Your task to perform on an android device: turn off notifications in google photos Image 0: 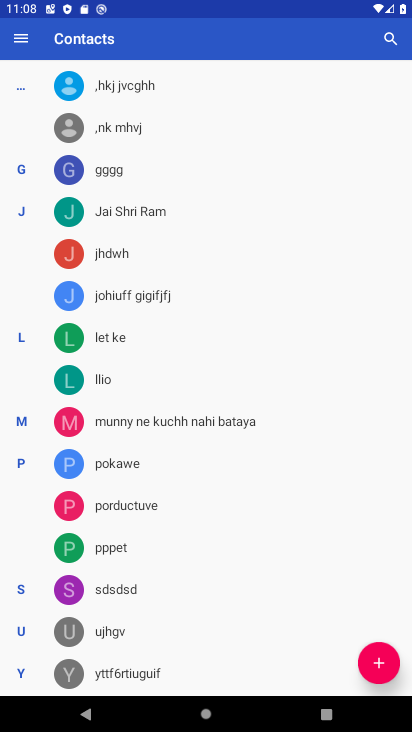
Step 0: press home button
Your task to perform on an android device: turn off notifications in google photos Image 1: 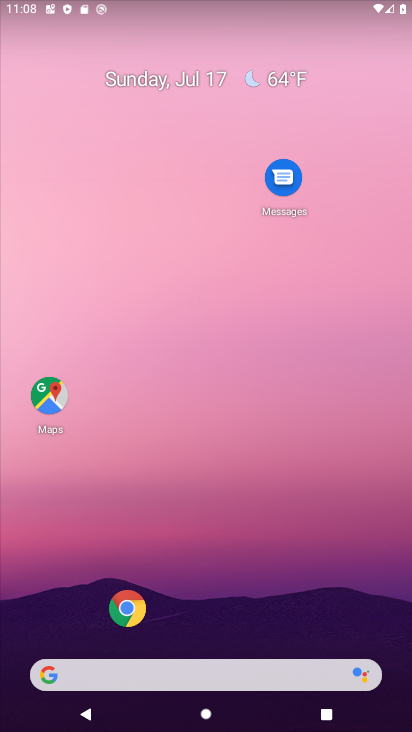
Step 1: drag from (23, 694) to (228, 188)
Your task to perform on an android device: turn off notifications in google photos Image 2: 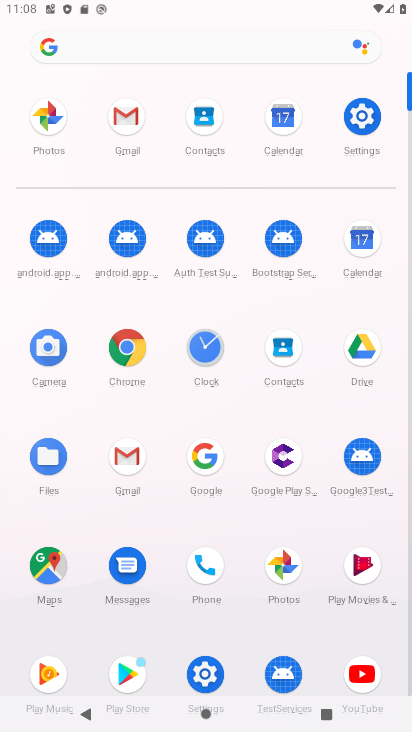
Step 2: click (269, 569)
Your task to perform on an android device: turn off notifications in google photos Image 3: 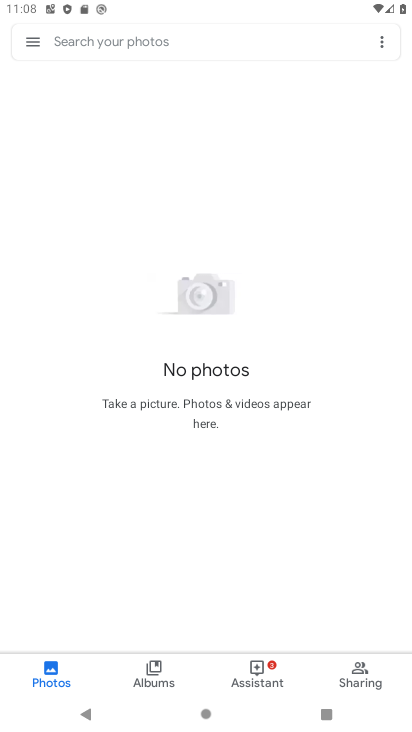
Step 3: click (35, 33)
Your task to perform on an android device: turn off notifications in google photos Image 4: 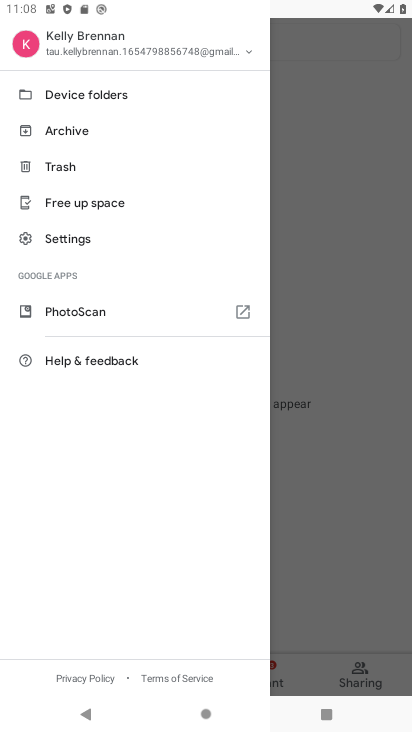
Step 4: click (76, 235)
Your task to perform on an android device: turn off notifications in google photos Image 5: 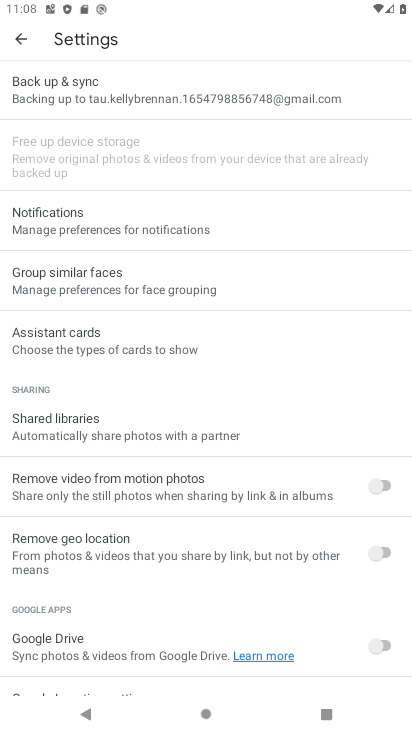
Step 5: click (70, 215)
Your task to perform on an android device: turn off notifications in google photos Image 6: 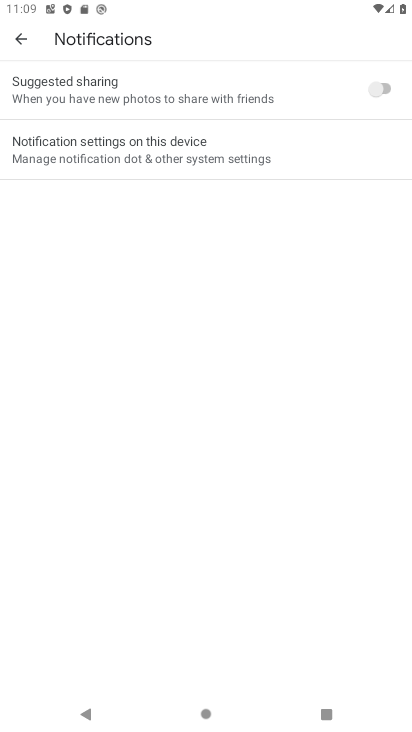
Step 6: click (70, 153)
Your task to perform on an android device: turn off notifications in google photos Image 7: 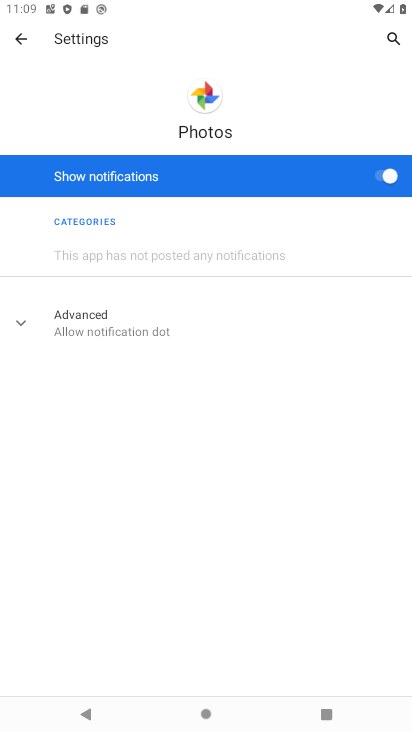
Step 7: click (385, 171)
Your task to perform on an android device: turn off notifications in google photos Image 8: 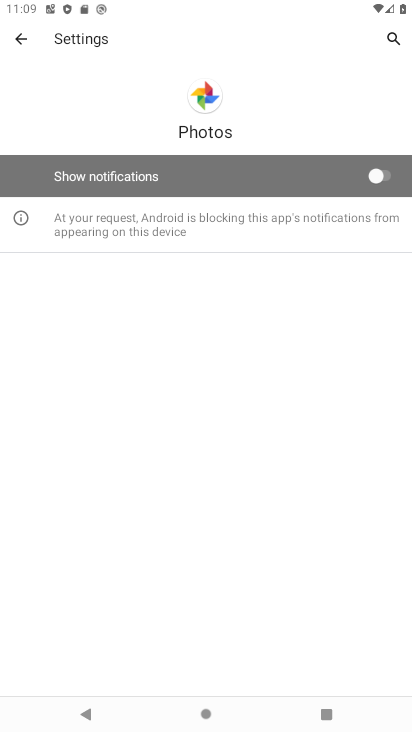
Step 8: task complete